Your task to perform on an android device: change the clock display to digital Image 0: 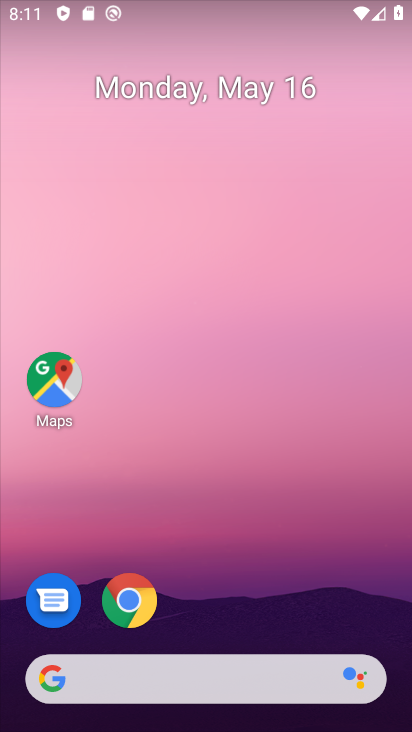
Step 0: drag from (156, 642) to (262, 302)
Your task to perform on an android device: change the clock display to digital Image 1: 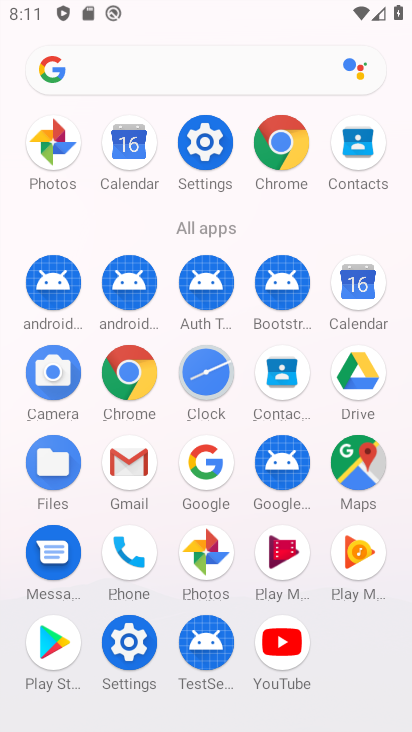
Step 1: click (212, 374)
Your task to perform on an android device: change the clock display to digital Image 2: 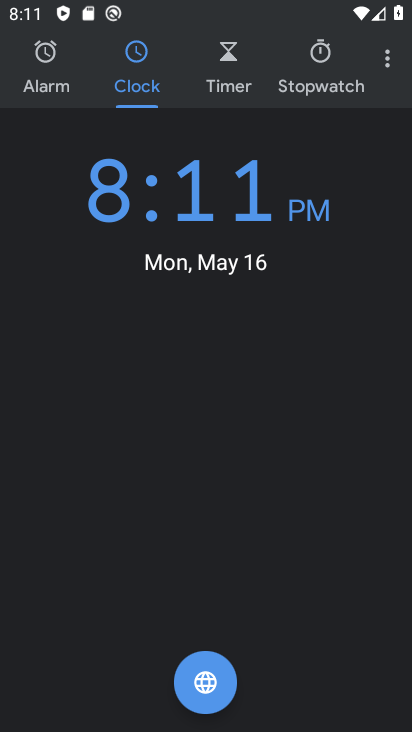
Step 2: click (386, 60)
Your task to perform on an android device: change the clock display to digital Image 3: 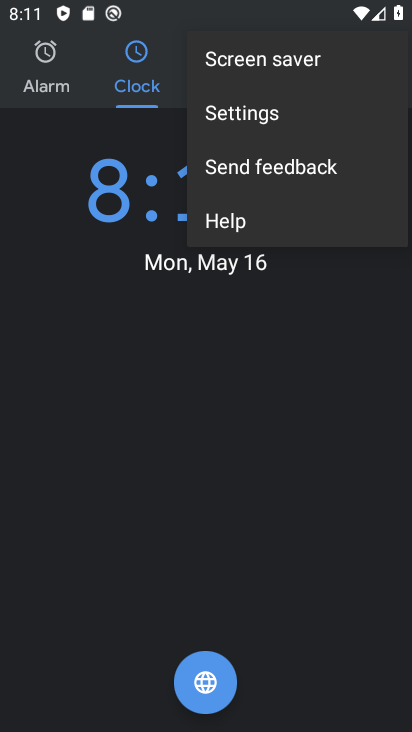
Step 3: click (343, 123)
Your task to perform on an android device: change the clock display to digital Image 4: 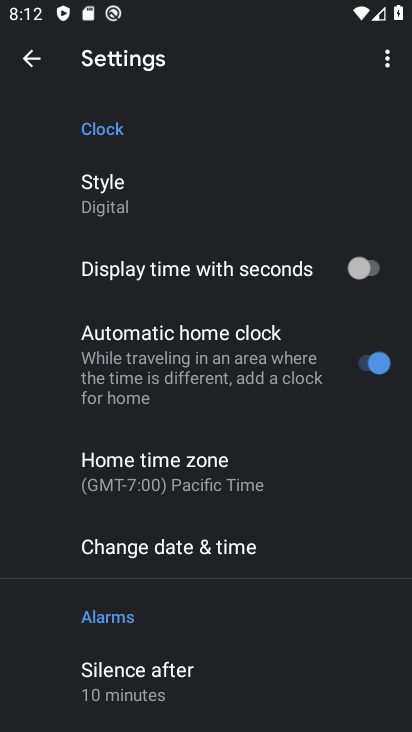
Step 4: task complete